Your task to perform on an android device: Go to settings Image 0: 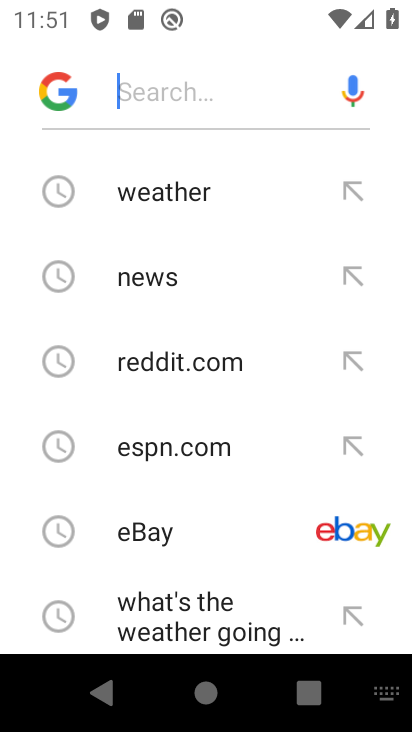
Step 0: drag from (227, 562) to (249, 159)
Your task to perform on an android device: Go to settings Image 1: 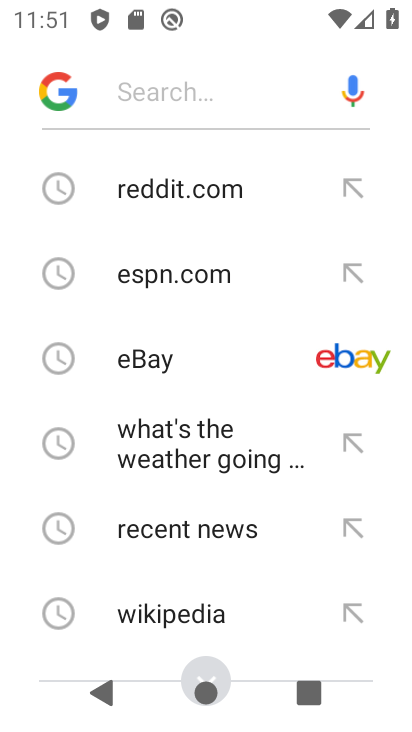
Step 1: press home button
Your task to perform on an android device: Go to settings Image 2: 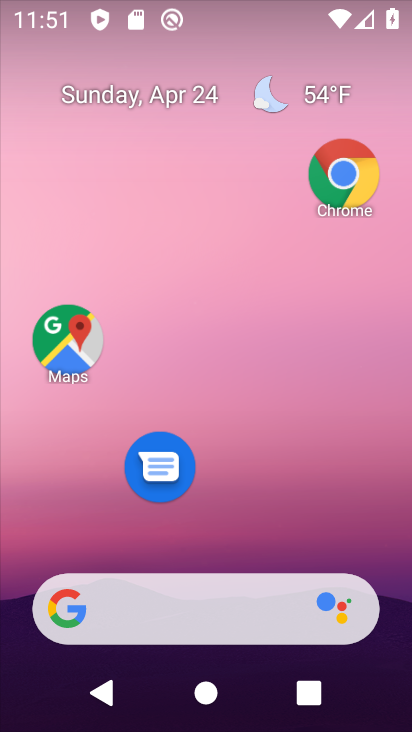
Step 2: drag from (235, 523) to (243, 103)
Your task to perform on an android device: Go to settings Image 3: 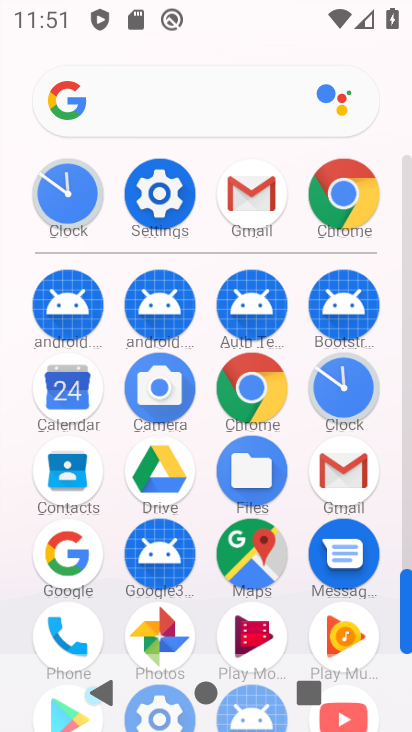
Step 3: click (162, 204)
Your task to perform on an android device: Go to settings Image 4: 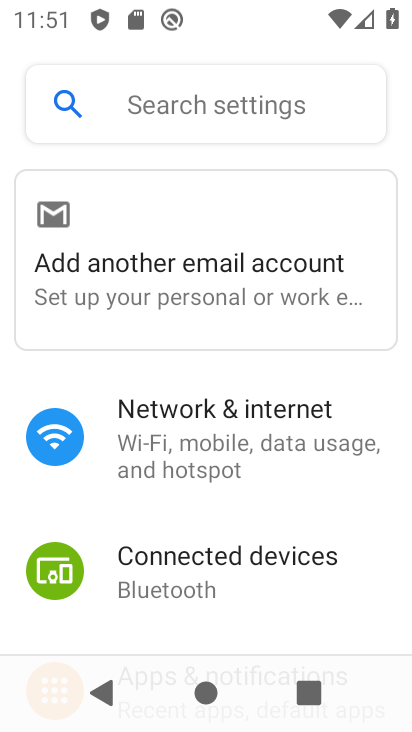
Step 4: task complete